Your task to perform on an android device: View the shopping cart on walmart. Search for "logitech g502" on walmart, select the first entry, add it to the cart, then select checkout. Image 0: 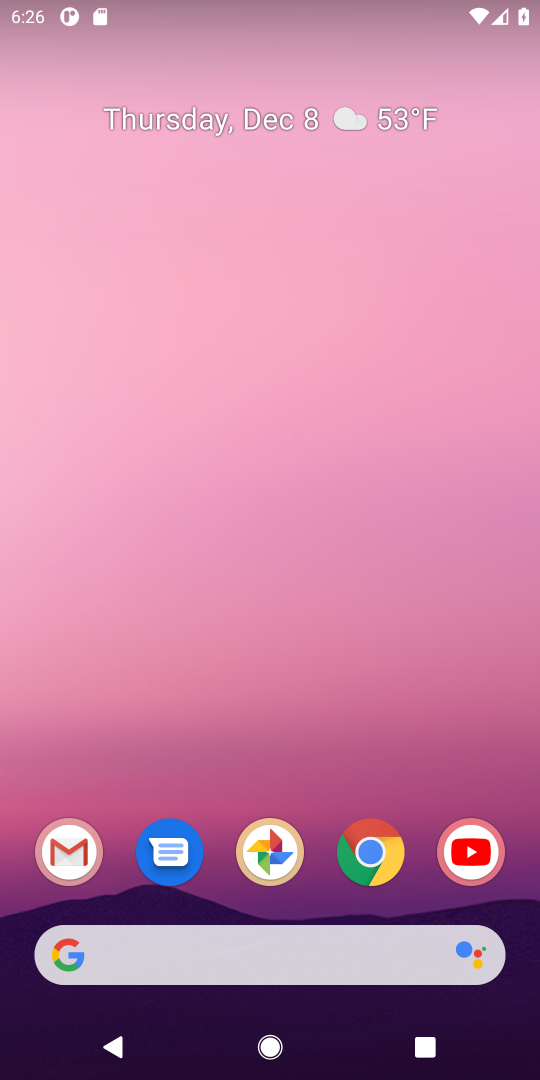
Step 0: click (351, 946)
Your task to perform on an android device: View the shopping cart on walmart. Search for "logitech g502" on walmart, select the first entry, add it to the cart, then select checkout. Image 1: 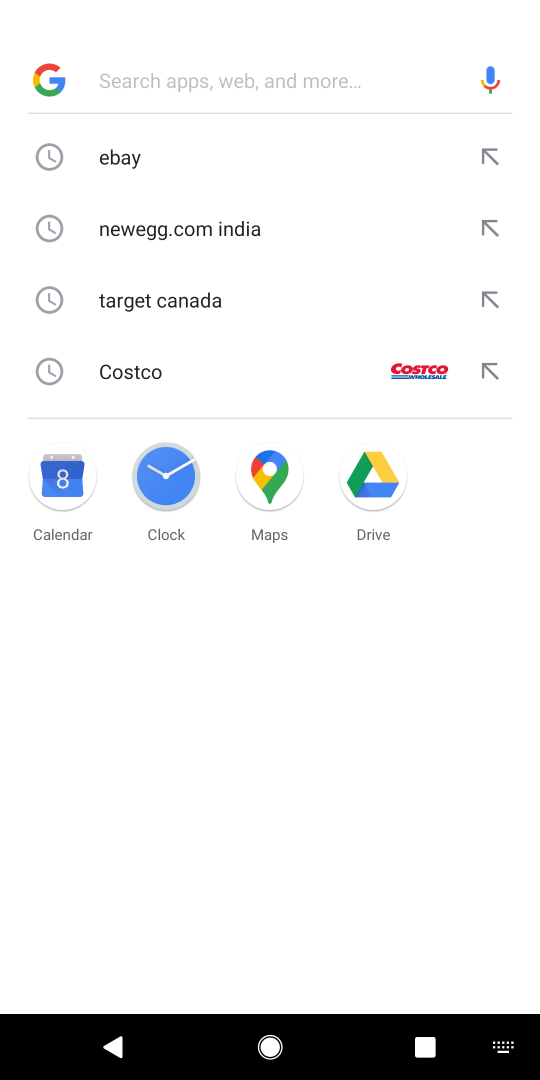
Step 1: type "walmart"
Your task to perform on an android device: View the shopping cart on walmart. Search for "logitech g502" on walmart, select the first entry, add it to the cart, then select checkout. Image 2: 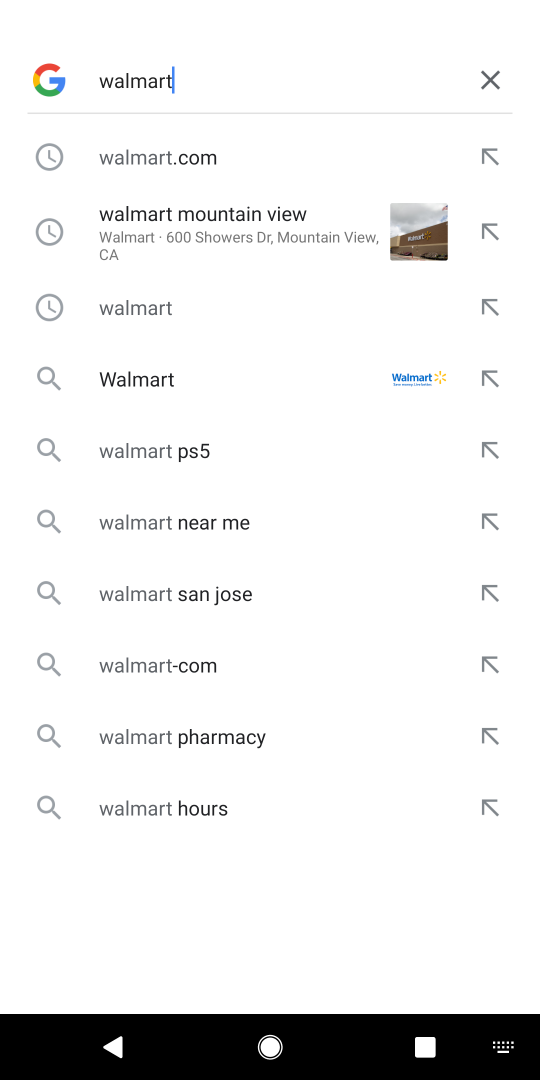
Step 2: click (165, 158)
Your task to perform on an android device: View the shopping cart on walmart. Search for "logitech g502" on walmart, select the first entry, add it to the cart, then select checkout. Image 3: 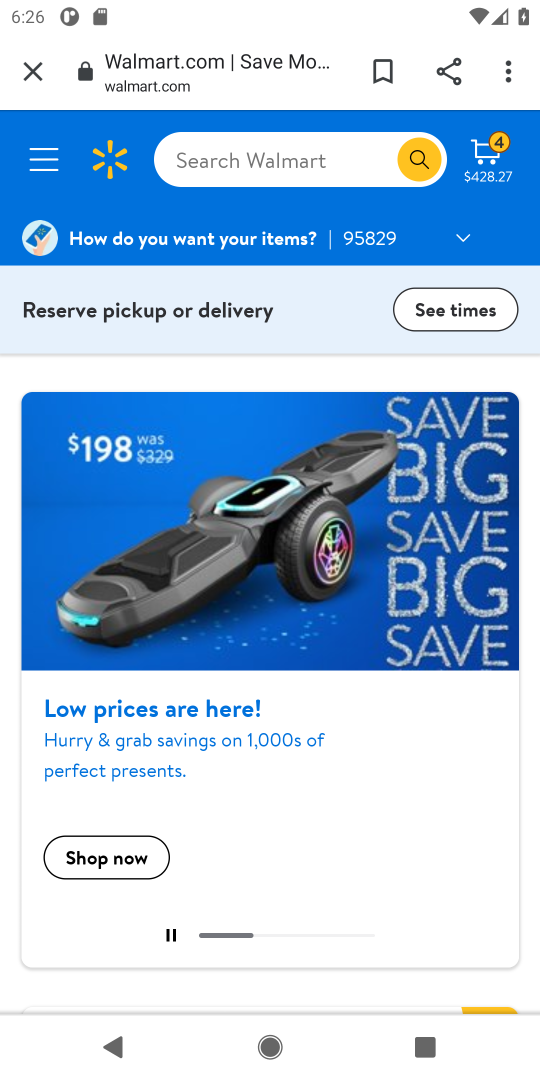
Step 3: click (223, 162)
Your task to perform on an android device: View the shopping cart on walmart. Search for "logitech g502" on walmart, select the first entry, add it to the cart, then select checkout. Image 4: 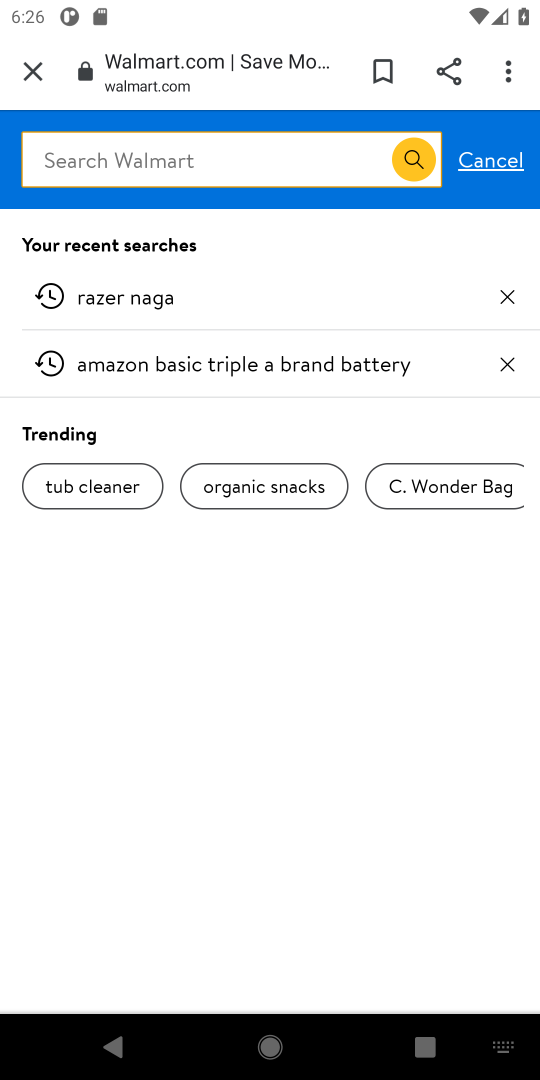
Step 4: type "logitech g502"
Your task to perform on an android device: View the shopping cart on walmart. Search for "logitech g502" on walmart, select the first entry, add it to the cart, then select checkout. Image 5: 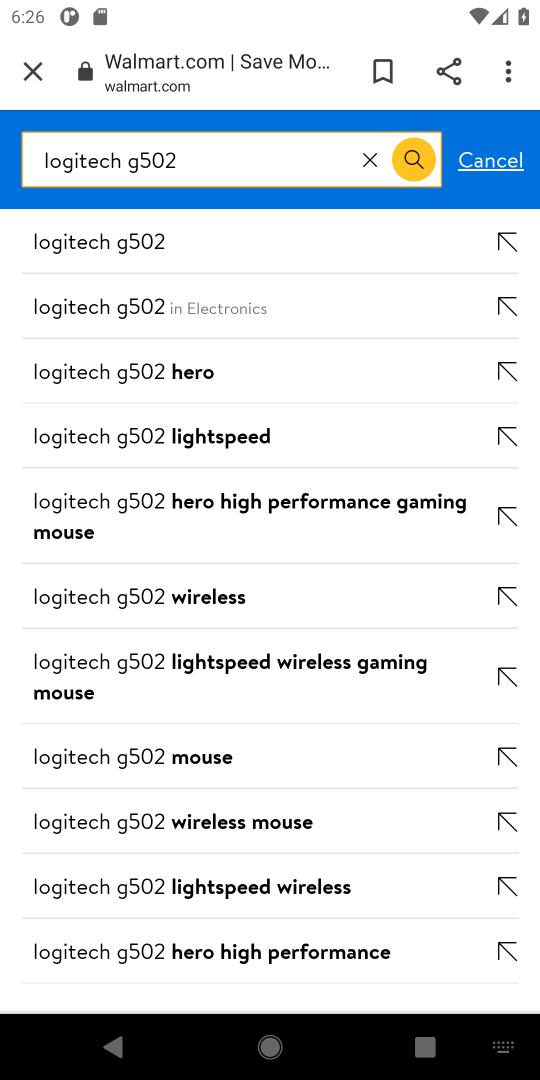
Step 5: click (83, 239)
Your task to perform on an android device: View the shopping cart on walmart. Search for "logitech g502" on walmart, select the first entry, add it to the cart, then select checkout. Image 6: 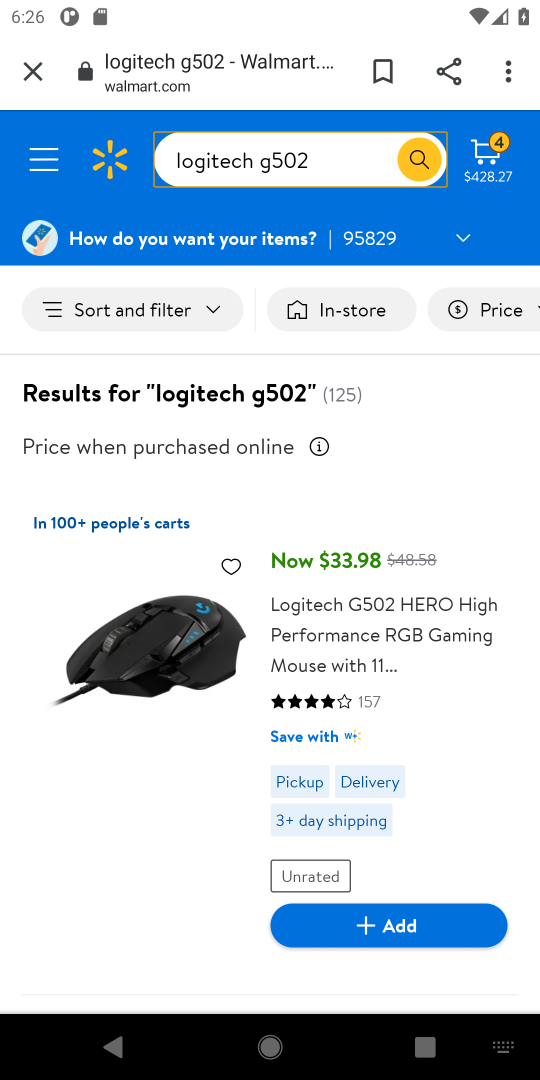
Step 6: click (435, 931)
Your task to perform on an android device: View the shopping cart on walmart. Search for "logitech g502" on walmart, select the first entry, add it to the cart, then select checkout. Image 7: 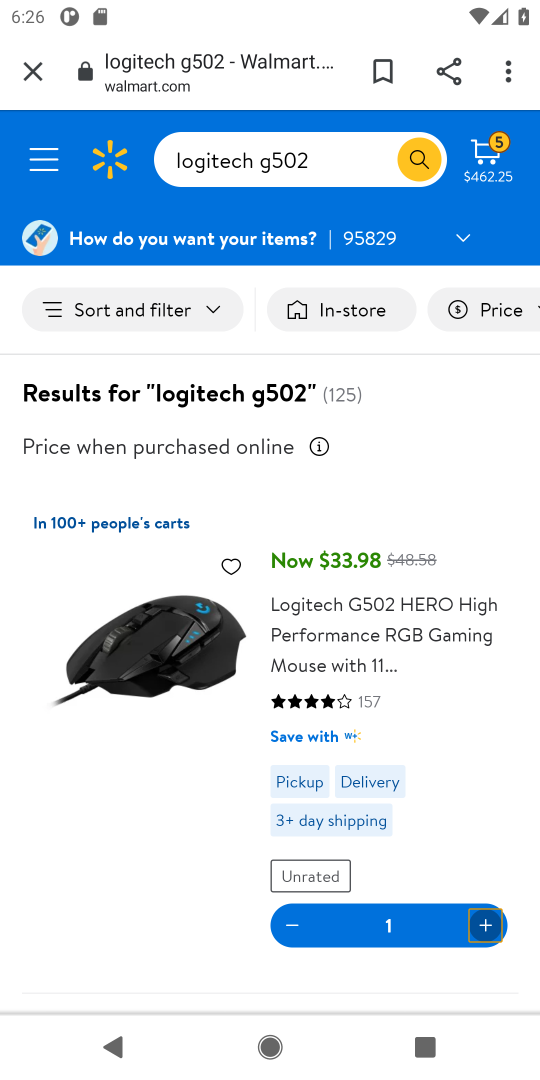
Step 7: task complete